Your task to perform on an android device: Go to Reddit.com Image 0: 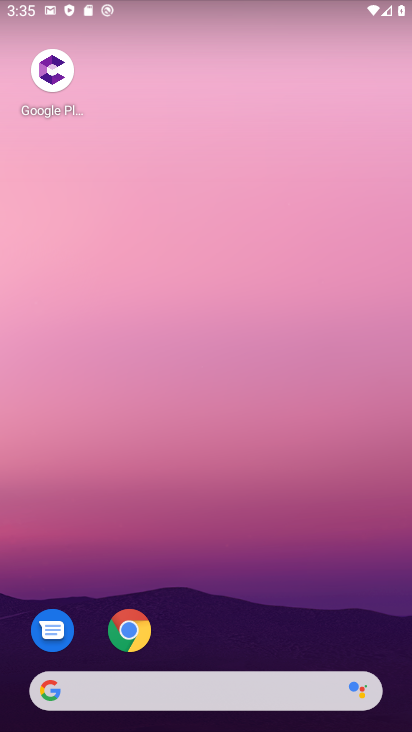
Step 0: drag from (245, 535) to (207, 414)
Your task to perform on an android device: Go to Reddit.com Image 1: 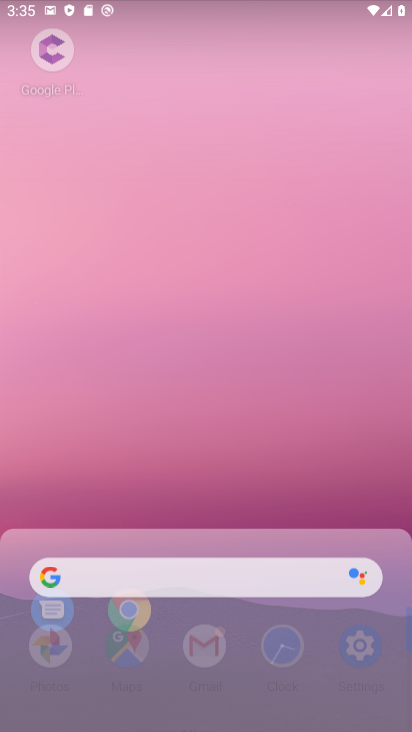
Step 1: drag from (235, 533) to (149, 19)
Your task to perform on an android device: Go to Reddit.com Image 2: 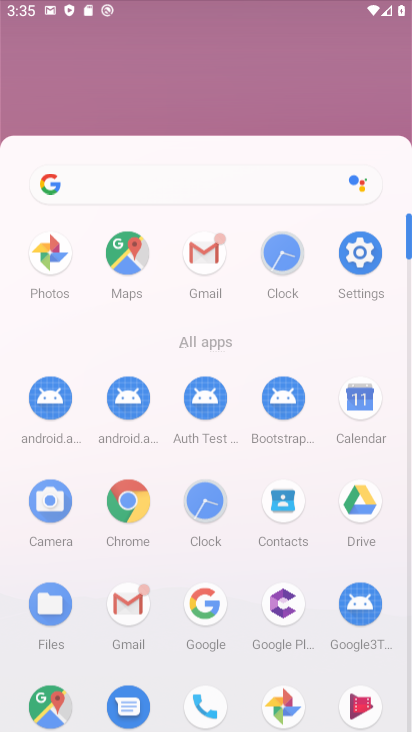
Step 2: drag from (170, 375) to (130, 32)
Your task to perform on an android device: Go to Reddit.com Image 3: 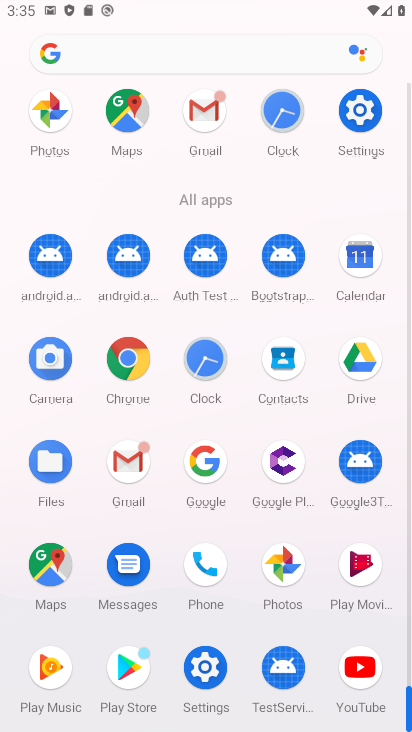
Step 3: drag from (212, 456) to (190, 0)
Your task to perform on an android device: Go to Reddit.com Image 4: 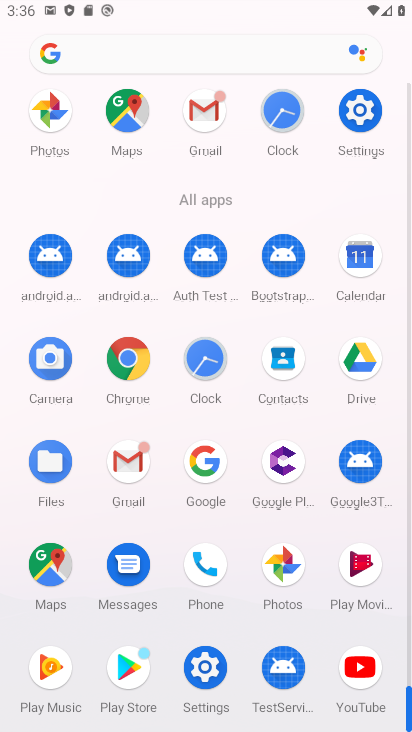
Step 4: click (364, 108)
Your task to perform on an android device: Go to Reddit.com Image 5: 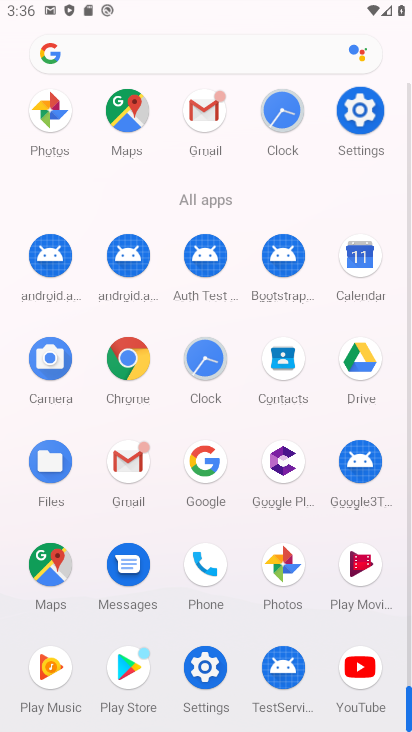
Step 5: click (363, 107)
Your task to perform on an android device: Go to Reddit.com Image 6: 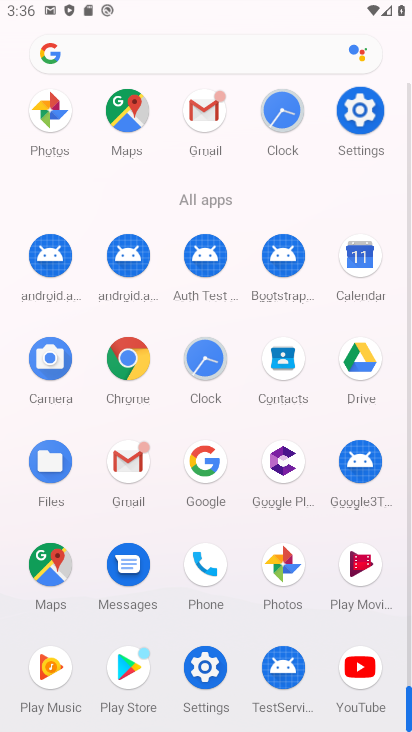
Step 6: click (363, 107)
Your task to perform on an android device: Go to Reddit.com Image 7: 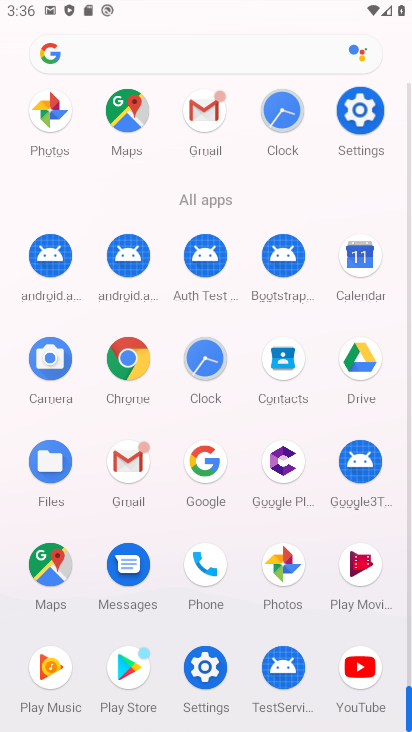
Step 7: click (363, 107)
Your task to perform on an android device: Go to Reddit.com Image 8: 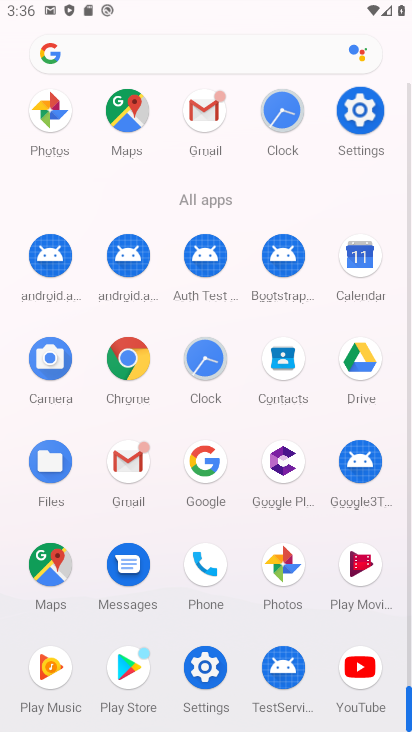
Step 8: click (363, 107)
Your task to perform on an android device: Go to Reddit.com Image 9: 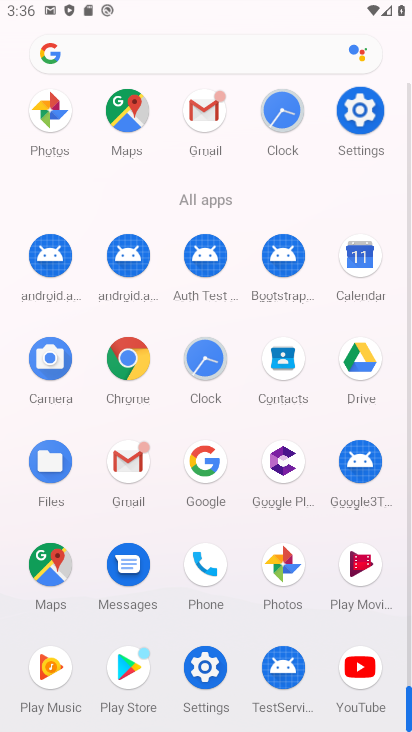
Step 9: click (363, 107)
Your task to perform on an android device: Go to Reddit.com Image 10: 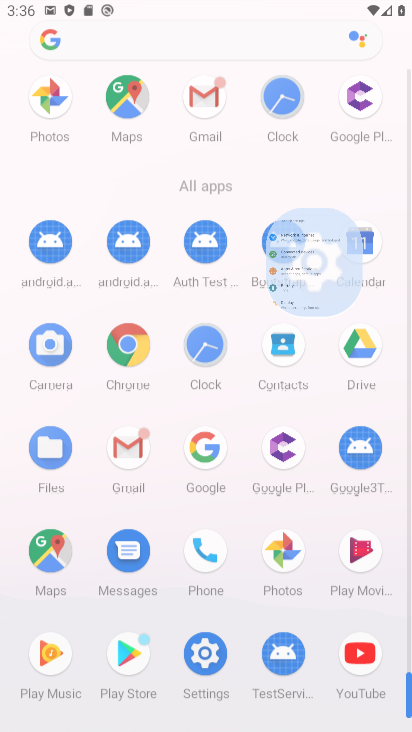
Step 10: click (363, 107)
Your task to perform on an android device: Go to Reddit.com Image 11: 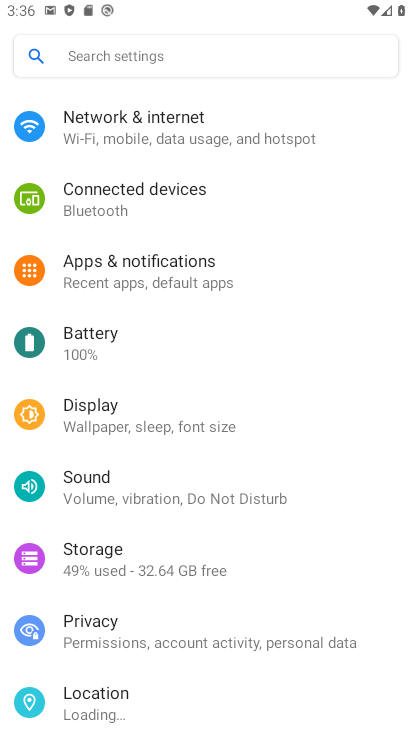
Step 11: click (363, 107)
Your task to perform on an android device: Go to Reddit.com Image 12: 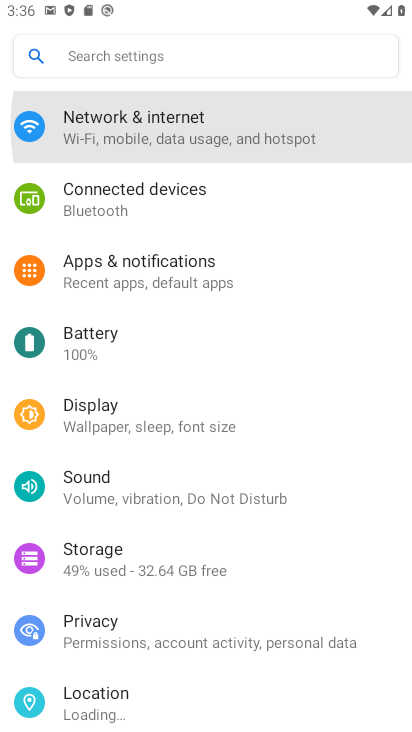
Step 12: click (363, 107)
Your task to perform on an android device: Go to Reddit.com Image 13: 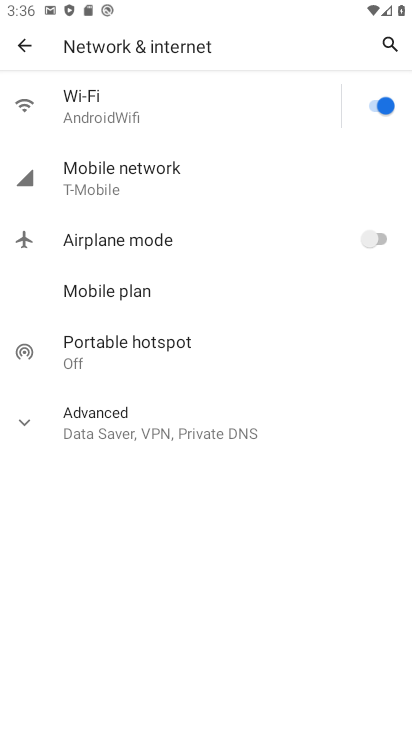
Step 13: click (23, 37)
Your task to perform on an android device: Go to Reddit.com Image 14: 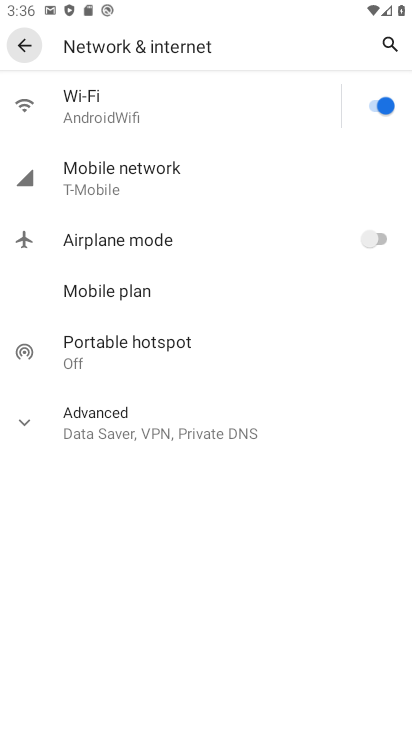
Step 14: click (23, 37)
Your task to perform on an android device: Go to Reddit.com Image 15: 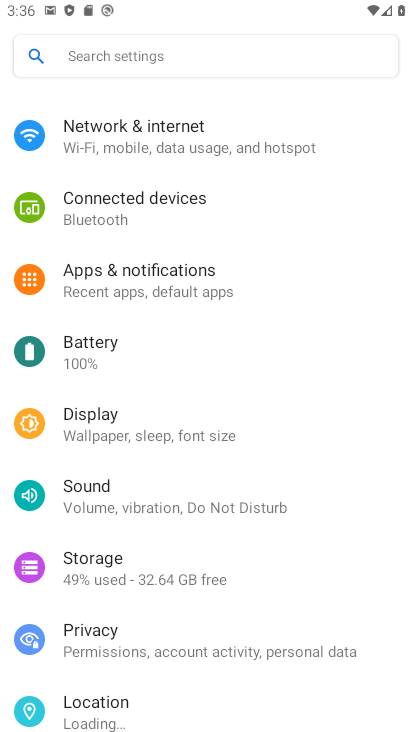
Step 15: click (24, 36)
Your task to perform on an android device: Go to Reddit.com Image 16: 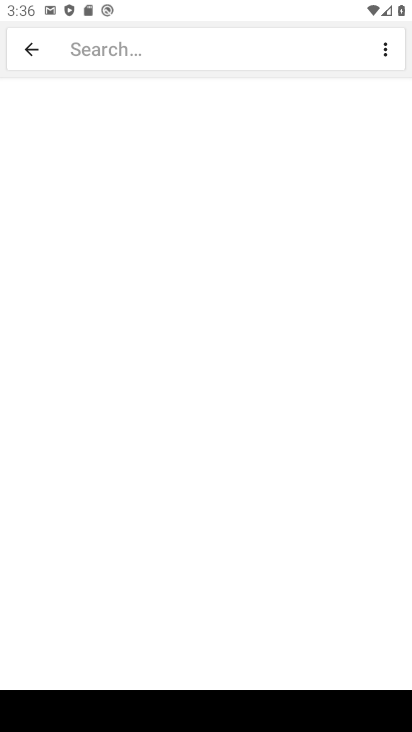
Step 16: click (30, 45)
Your task to perform on an android device: Go to Reddit.com Image 17: 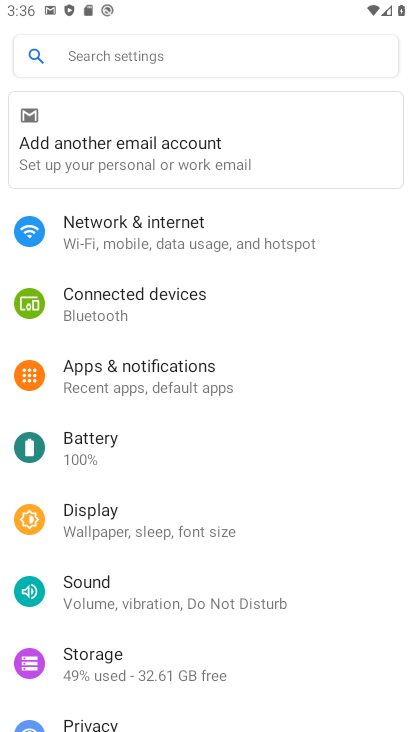
Step 17: press back button
Your task to perform on an android device: Go to Reddit.com Image 18: 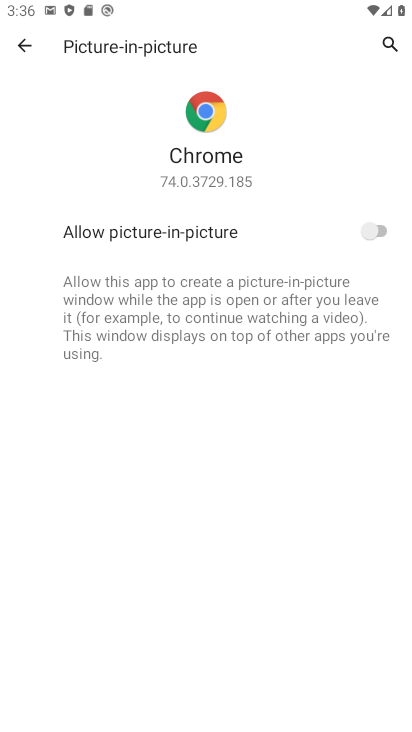
Step 18: click (23, 46)
Your task to perform on an android device: Go to Reddit.com Image 19: 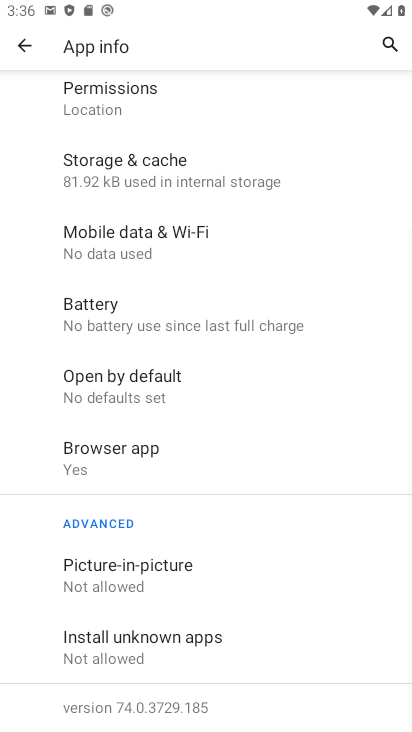
Step 19: click (13, 44)
Your task to perform on an android device: Go to Reddit.com Image 20: 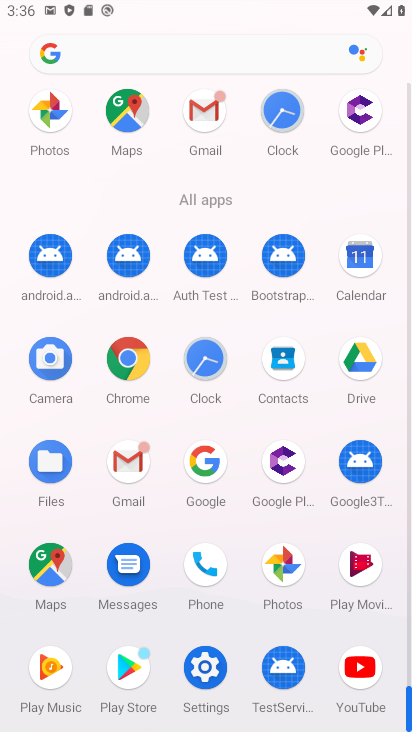
Step 20: click (96, 48)
Your task to perform on an android device: Go to Reddit.com Image 21: 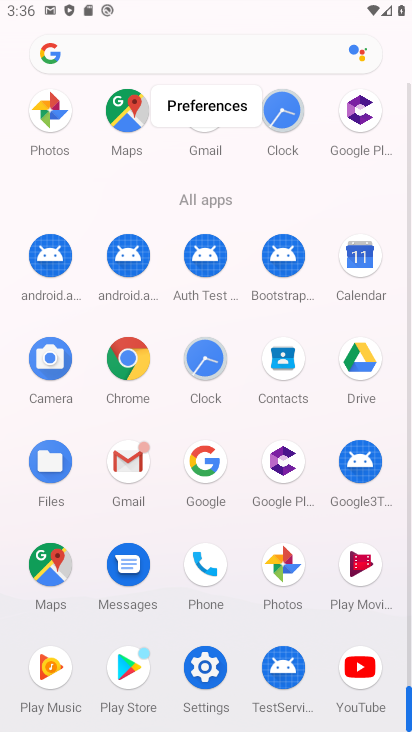
Step 21: click (128, 369)
Your task to perform on an android device: Go to Reddit.com Image 22: 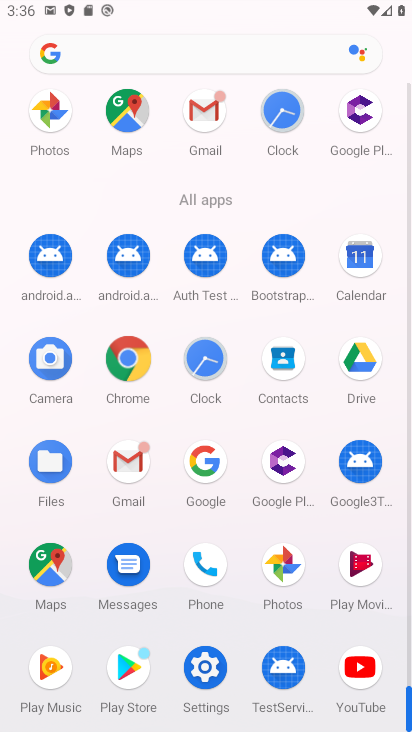
Step 22: click (128, 369)
Your task to perform on an android device: Go to Reddit.com Image 23: 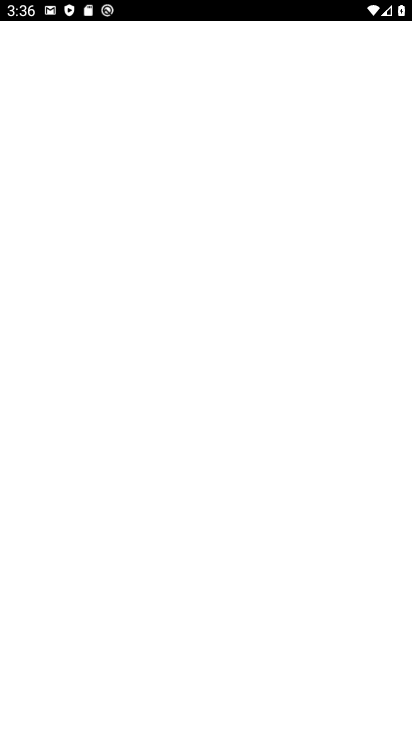
Step 23: click (128, 369)
Your task to perform on an android device: Go to Reddit.com Image 24: 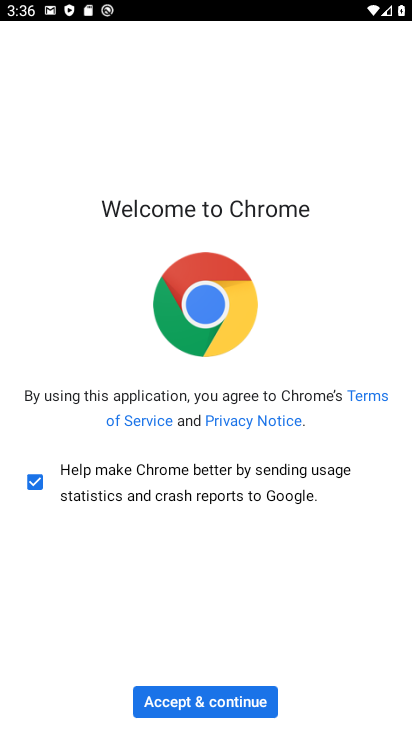
Step 24: click (401, 530)
Your task to perform on an android device: Go to Reddit.com Image 25: 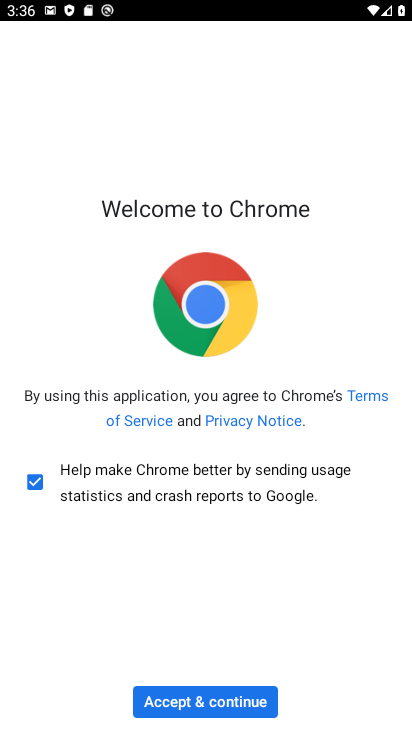
Step 25: click (242, 705)
Your task to perform on an android device: Go to Reddit.com Image 26: 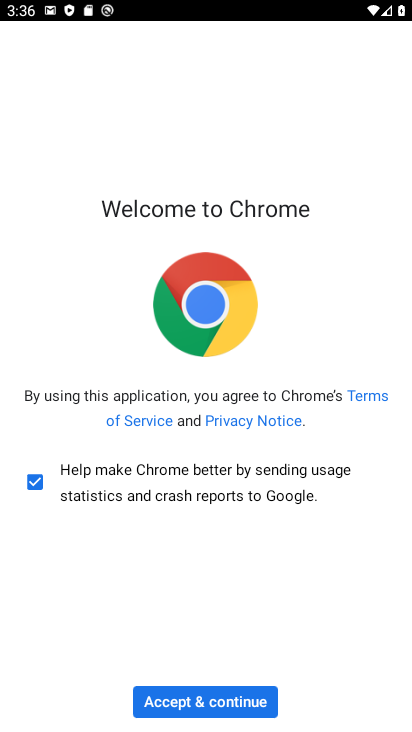
Step 26: click (243, 706)
Your task to perform on an android device: Go to Reddit.com Image 27: 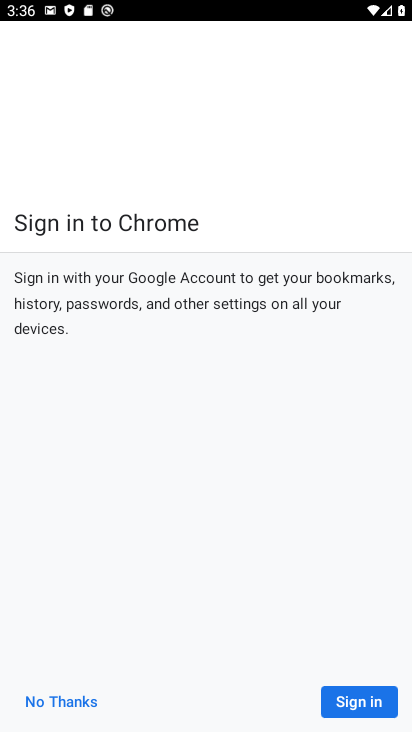
Step 27: click (243, 706)
Your task to perform on an android device: Go to Reddit.com Image 28: 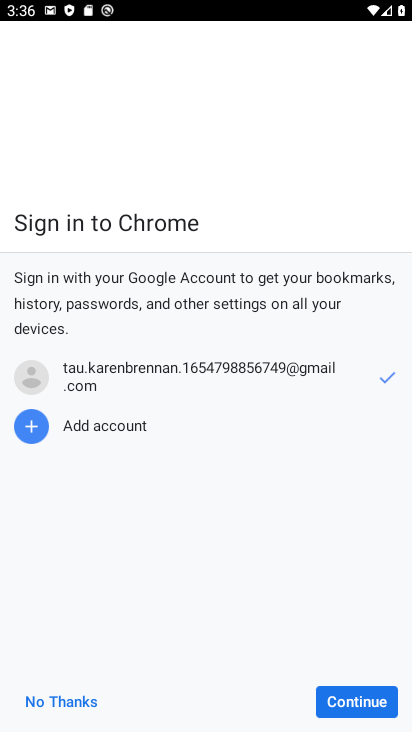
Step 28: click (243, 706)
Your task to perform on an android device: Go to Reddit.com Image 29: 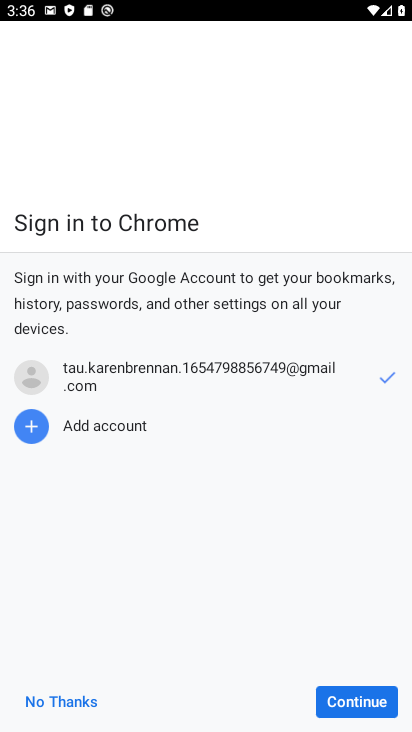
Step 29: click (358, 699)
Your task to perform on an android device: Go to Reddit.com Image 30: 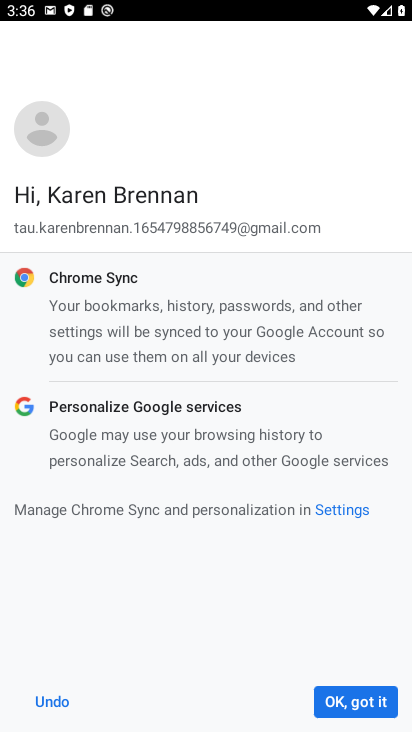
Step 30: click (358, 700)
Your task to perform on an android device: Go to Reddit.com Image 31: 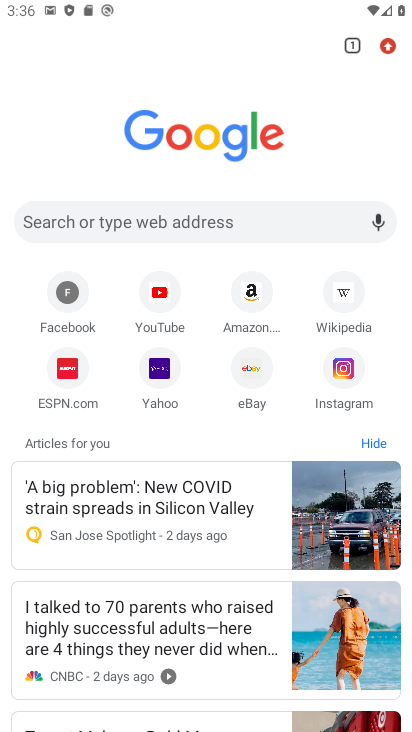
Step 31: click (87, 213)
Your task to perform on an android device: Go to Reddit.com Image 32: 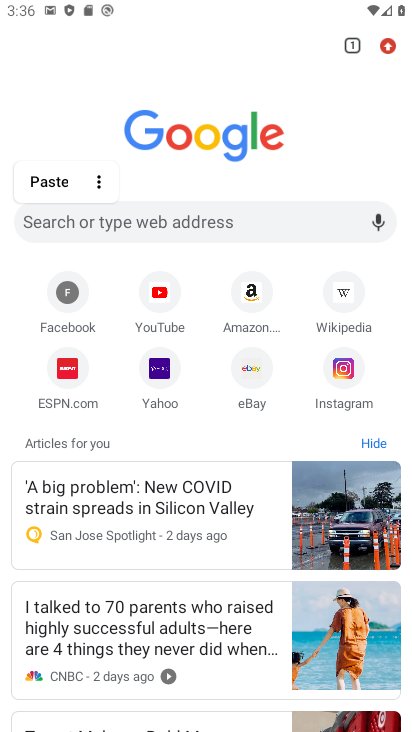
Step 32: type "reddit.com"
Your task to perform on an android device: Go to Reddit.com Image 33: 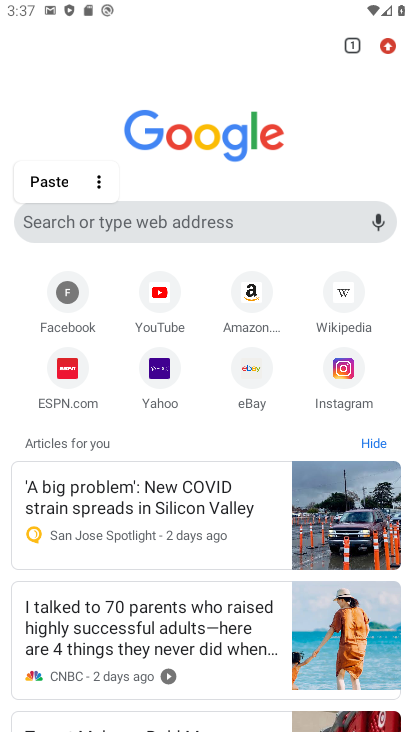
Step 33: task complete